Your task to perform on an android device: change your default location settings in chrome Image 0: 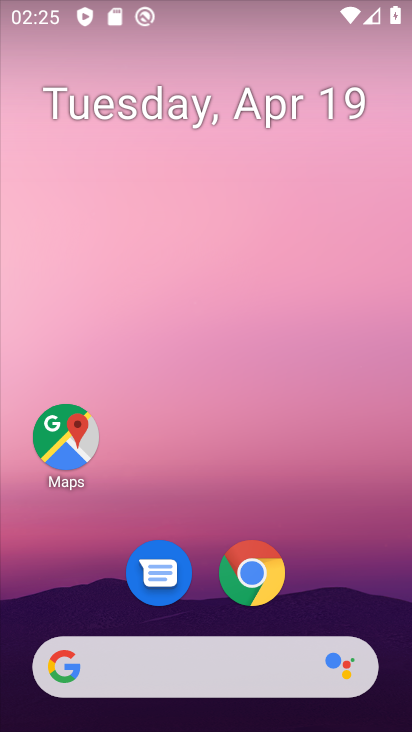
Step 0: click (254, 577)
Your task to perform on an android device: change your default location settings in chrome Image 1: 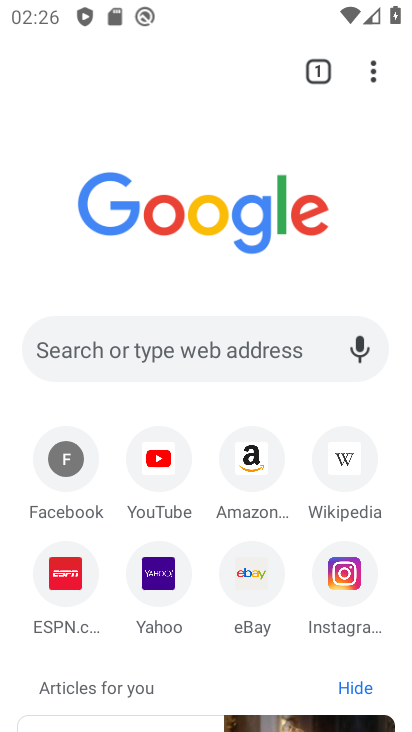
Step 1: click (371, 65)
Your task to perform on an android device: change your default location settings in chrome Image 2: 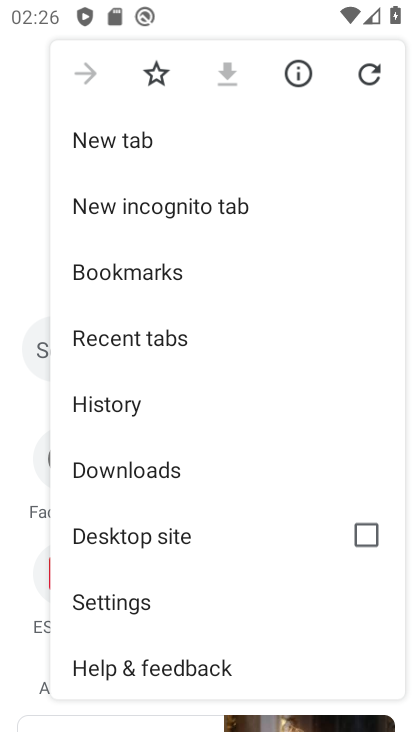
Step 2: click (135, 609)
Your task to perform on an android device: change your default location settings in chrome Image 3: 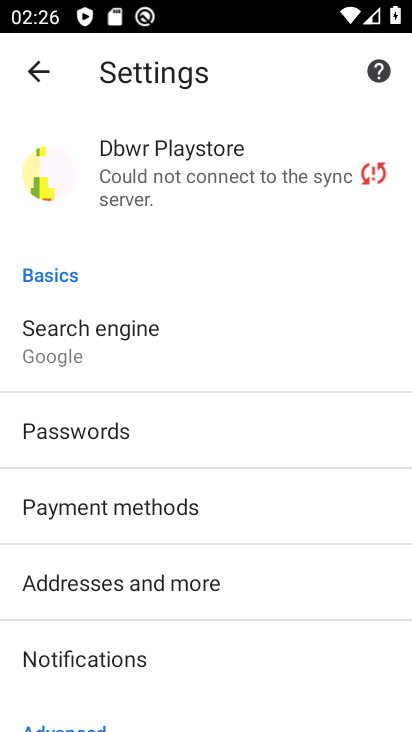
Step 3: drag from (233, 622) to (209, 201)
Your task to perform on an android device: change your default location settings in chrome Image 4: 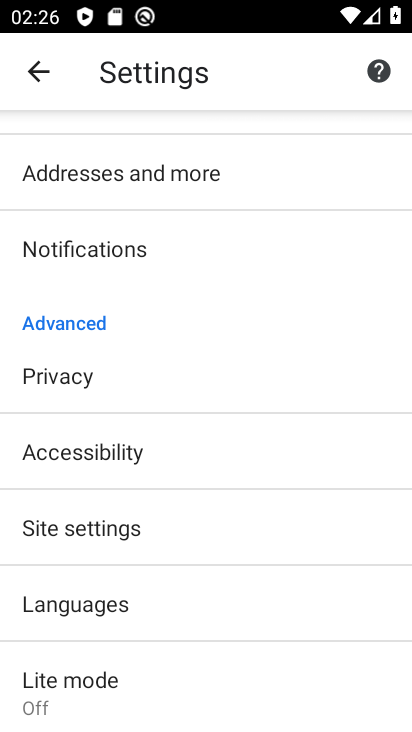
Step 4: click (93, 527)
Your task to perform on an android device: change your default location settings in chrome Image 5: 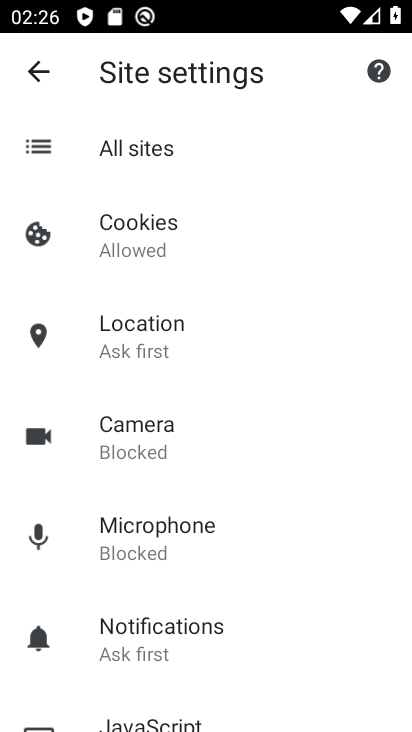
Step 5: click (117, 330)
Your task to perform on an android device: change your default location settings in chrome Image 6: 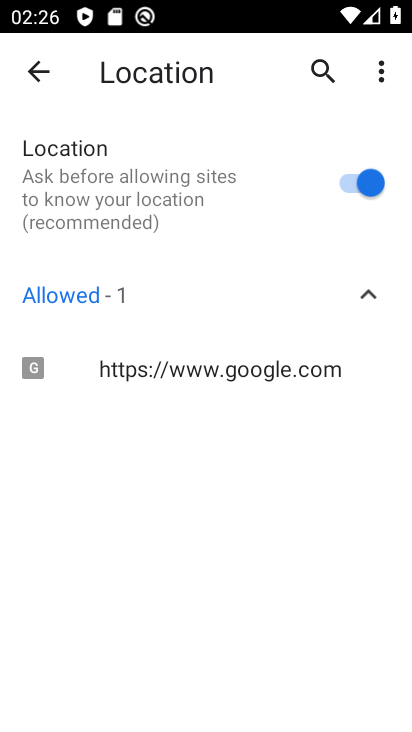
Step 6: click (365, 187)
Your task to perform on an android device: change your default location settings in chrome Image 7: 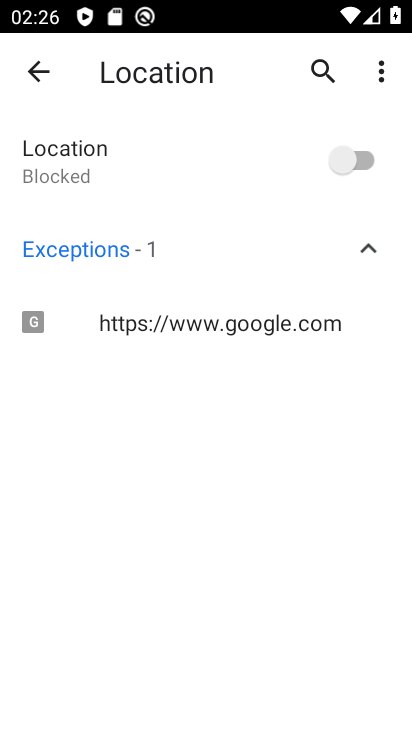
Step 7: task complete